Your task to perform on an android device: open wifi settings Image 0: 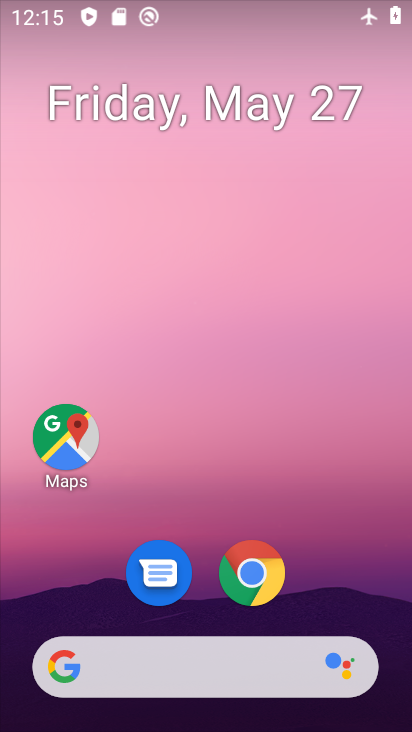
Step 0: drag from (332, 591) to (365, 224)
Your task to perform on an android device: open wifi settings Image 1: 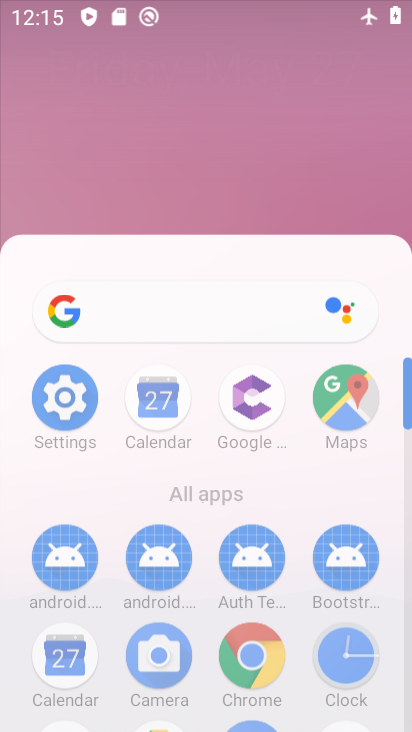
Step 1: click (365, 224)
Your task to perform on an android device: open wifi settings Image 2: 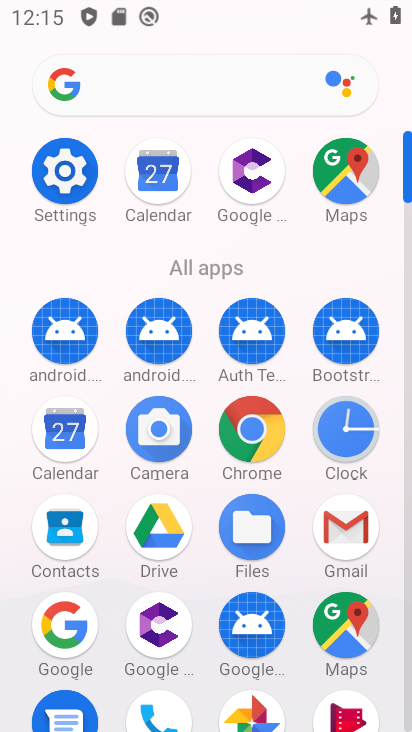
Step 2: click (81, 173)
Your task to perform on an android device: open wifi settings Image 3: 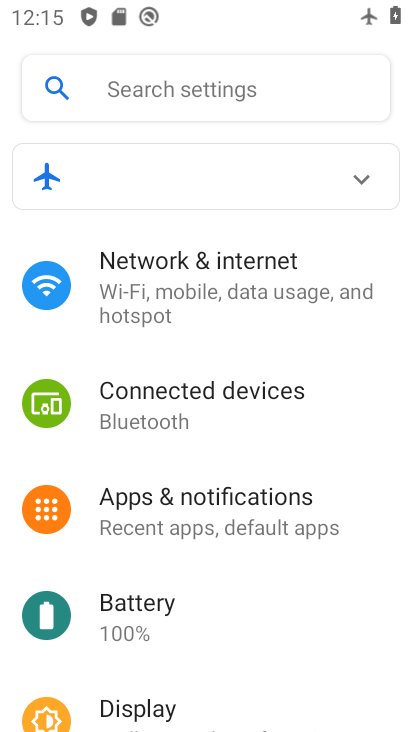
Step 3: click (155, 282)
Your task to perform on an android device: open wifi settings Image 4: 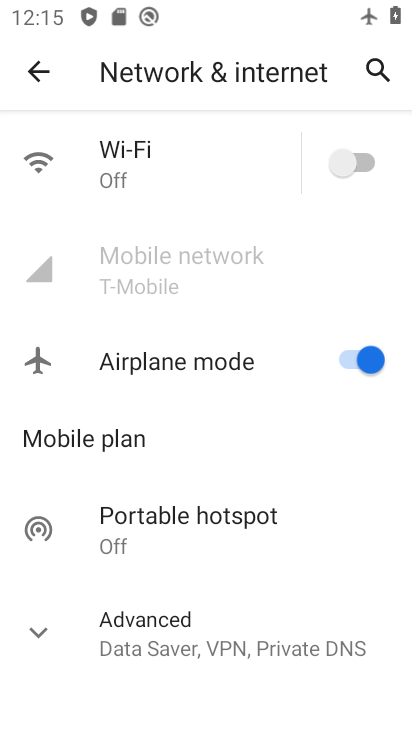
Step 4: click (222, 167)
Your task to perform on an android device: open wifi settings Image 5: 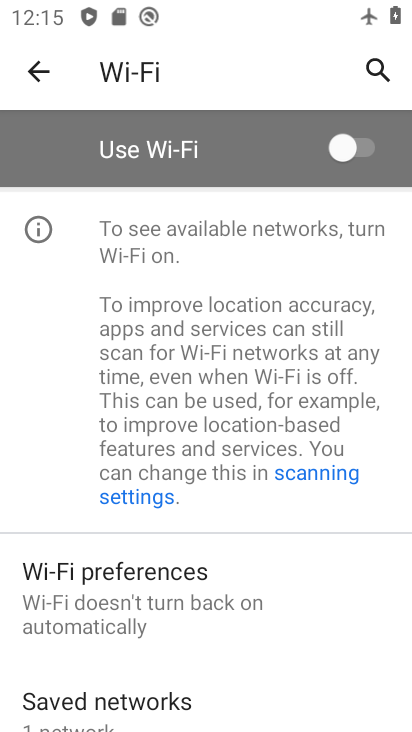
Step 5: click (365, 163)
Your task to perform on an android device: open wifi settings Image 6: 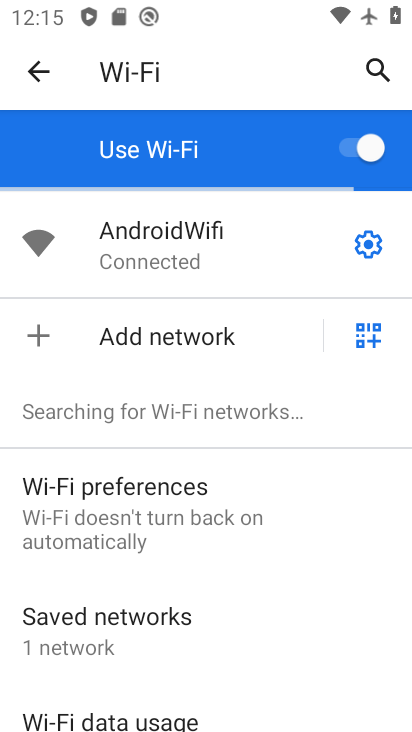
Step 6: click (375, 247)
Your task to perform on an android device: open wifi settings Image 7: 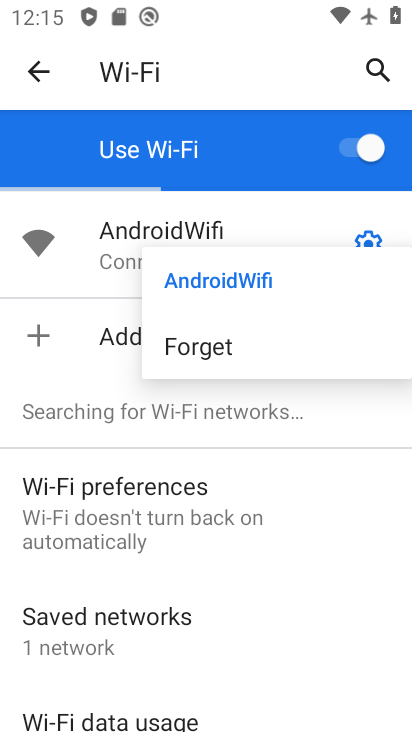
Step 7: click (374, 236)
Your task to perform on an android device: open wifi settings Image 8: 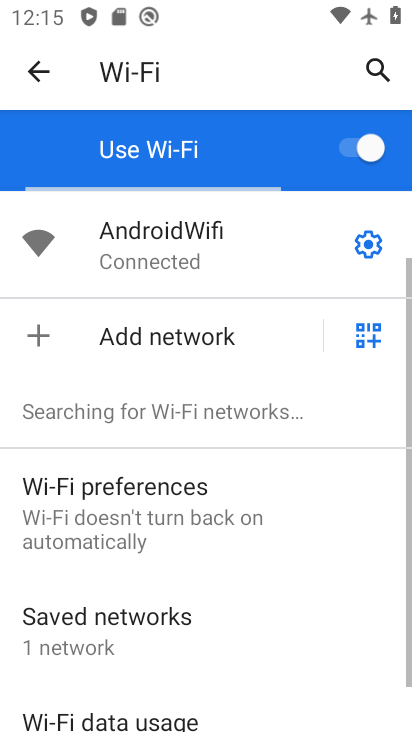
Step 8: click (369, 242)
Your task to perform on an android device: open wifi settings Image 9: 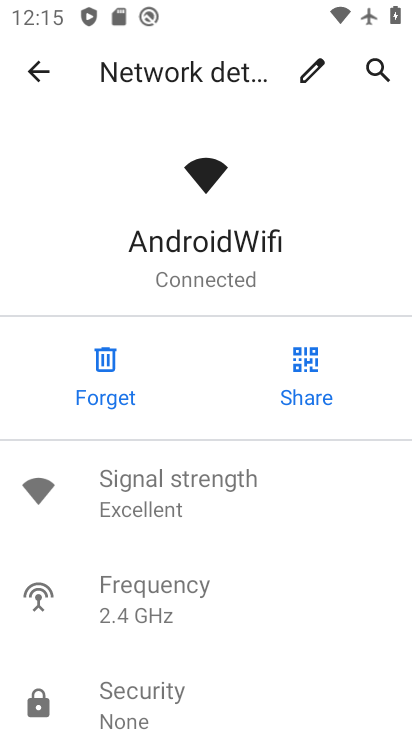
Step 9: task complete